Your task to perform on an android device: Open Chrome and go to settings Image 0: 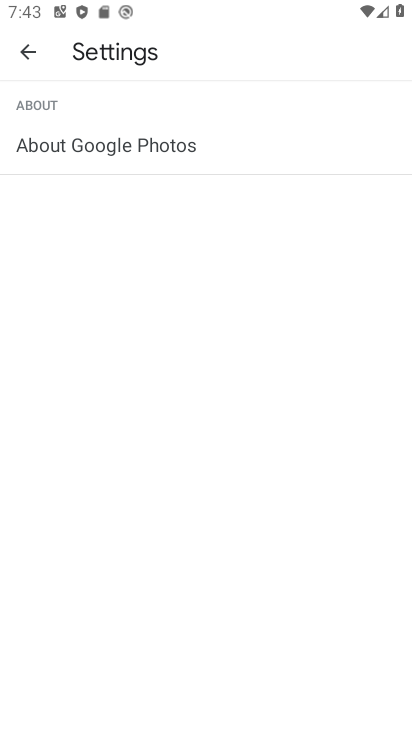
Step 0: press home button
Your task to perform on an android device: Open Chrome and go to settings Image 1: 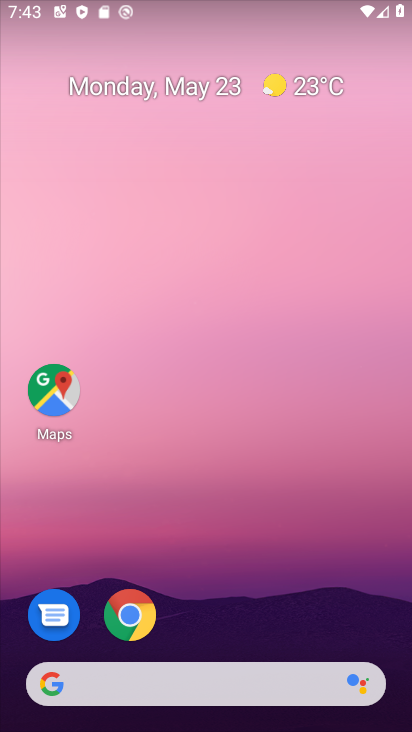
Step 1: click (133, 615)
Your task to perform on an android device: Open Chrome and go to settings Image 2: 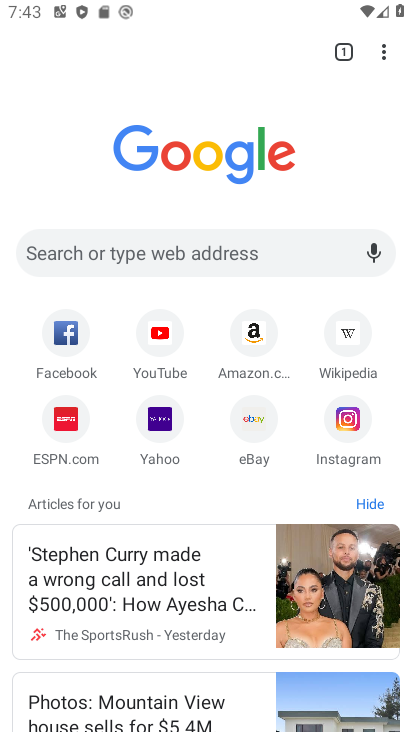
Step 2: click (385, 48)
Your task to perform on an android device: Open Chrome and go to settings Image 3: 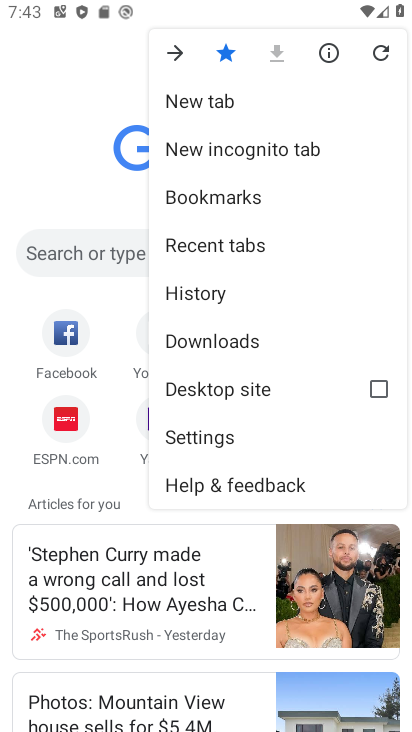
Step 3: click (201, 436)
Your task to perform on an android device: Open Chrome and go to settings Image 4: 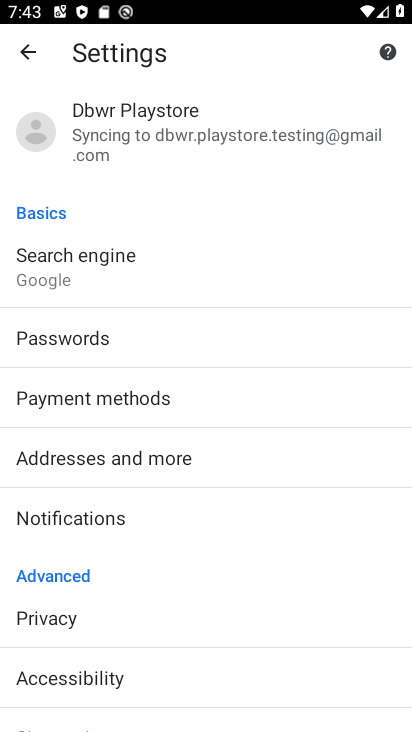
Step 4: task complete